Your task to perform on an android device: Play the last video I watched on Youtube Image 0: 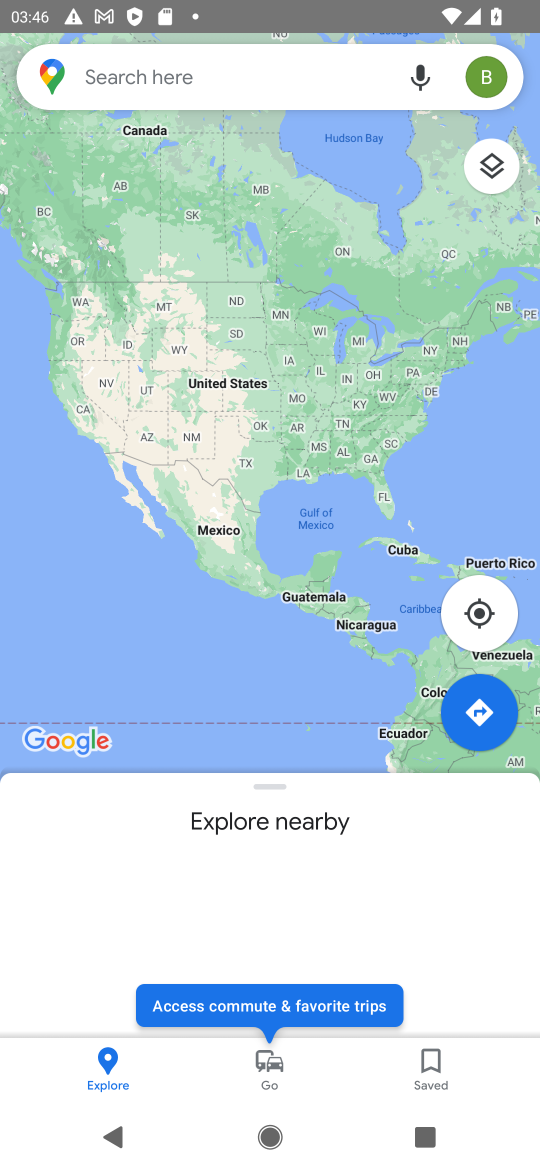
Step 0: press home button
Your task to perform on an android device: Play the last video I watched on Youtube Image 1: 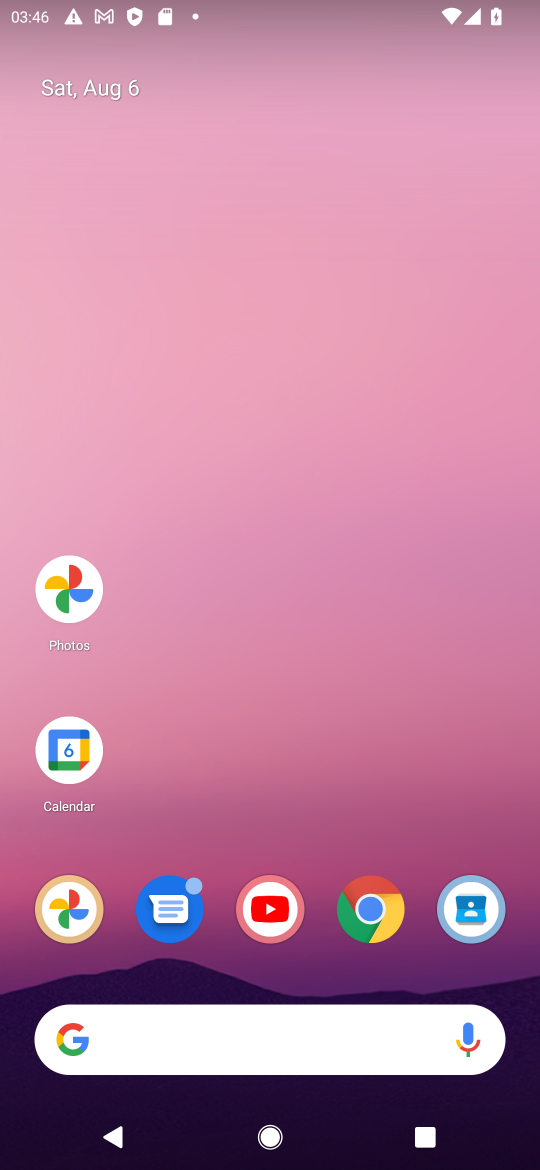
Step 1: click (271, 899)
Your task to perform on an android device: Play the last video I watched on Youtube Image 2: 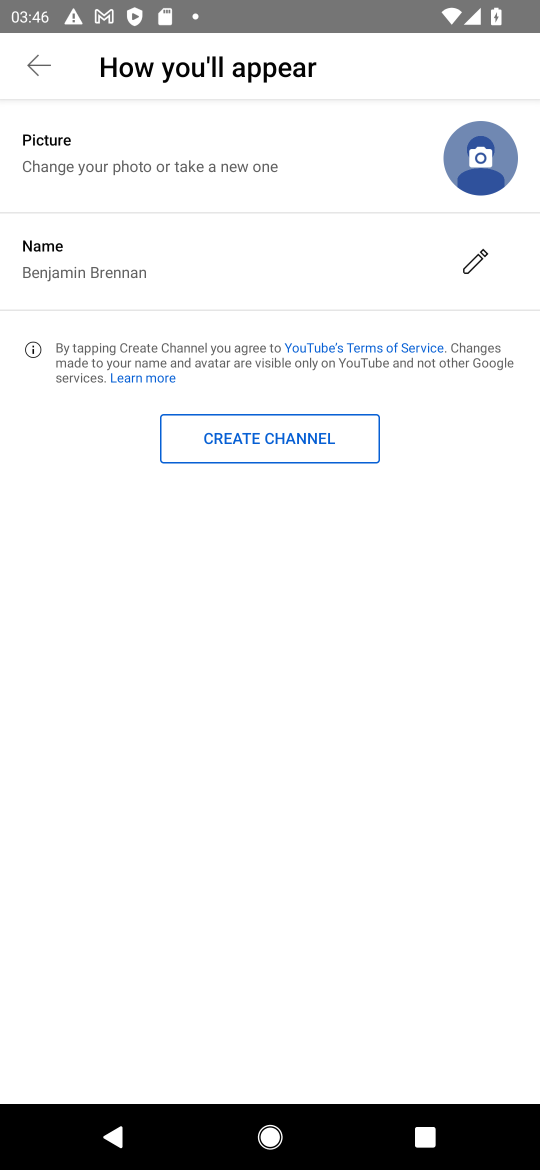
Step 2: click (41, 65)
Your task to perform on an android device: Play the last video I watched on Youtube Image 3: 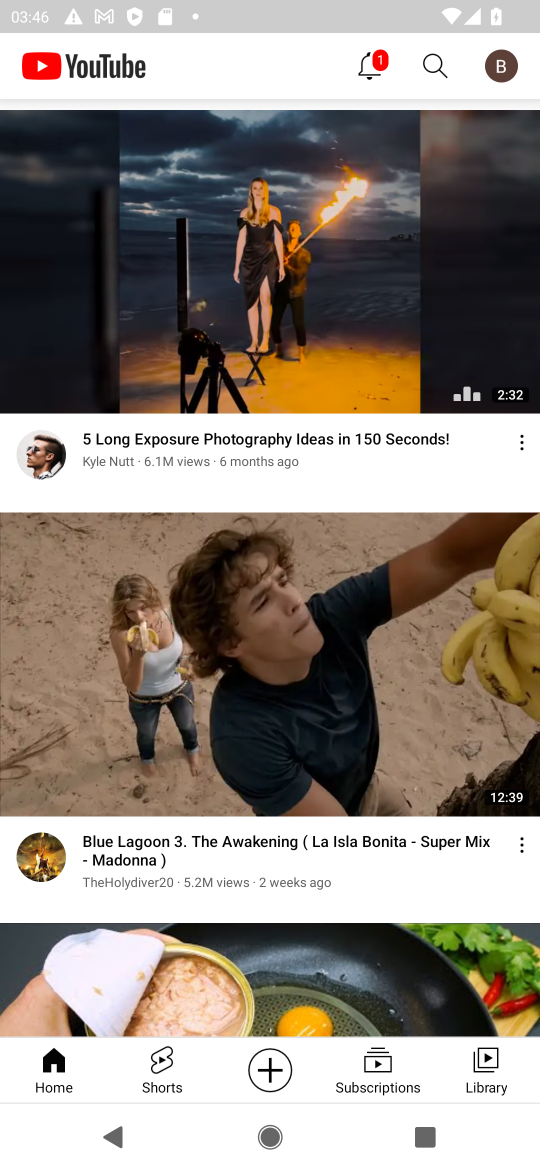
Step 3: click (482, 1066)
Your task to perform on an android device: Play the last video I watched on Youtube Image 4: 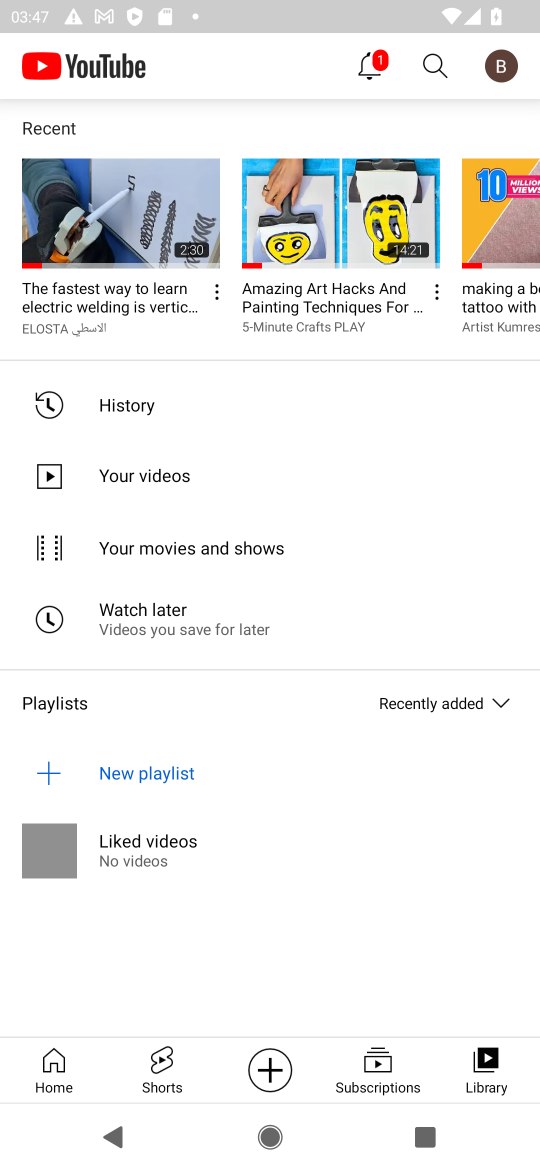
Step 4: click (136, 232)
Your task to perform on an android device: Play the last video I watched on Youtube Image 5: 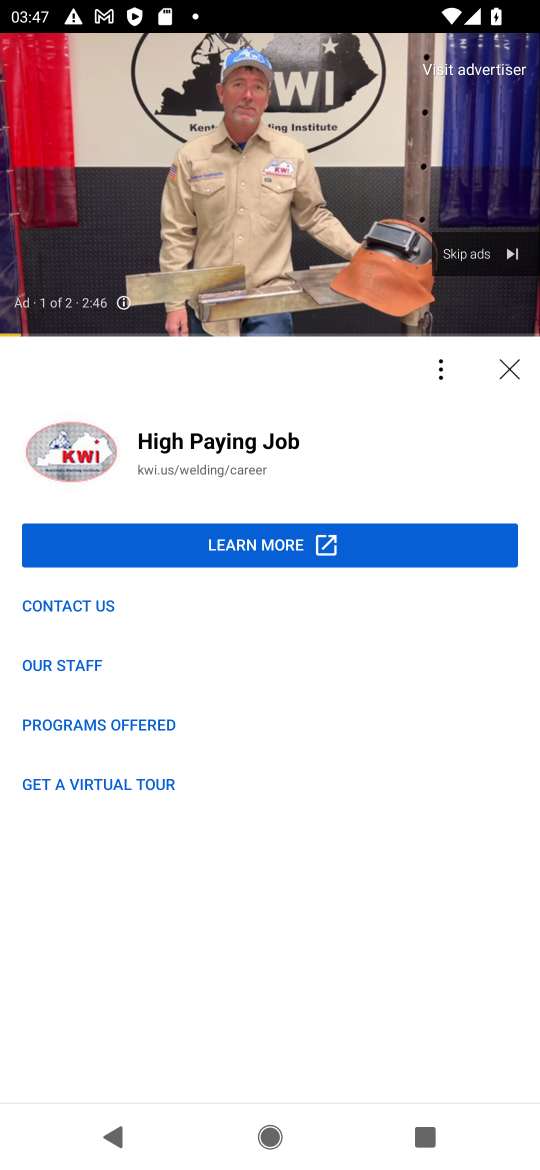
Step 5: task complete